Your task to perform on an android device: turn off javascript in the chrome app Image 0: 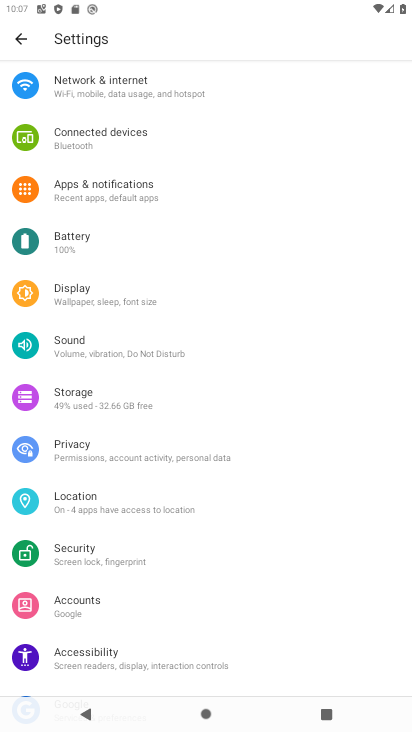
Step 0: press home button
Your task to perform on an android device: turn off javascript in the chrome app Image 1: 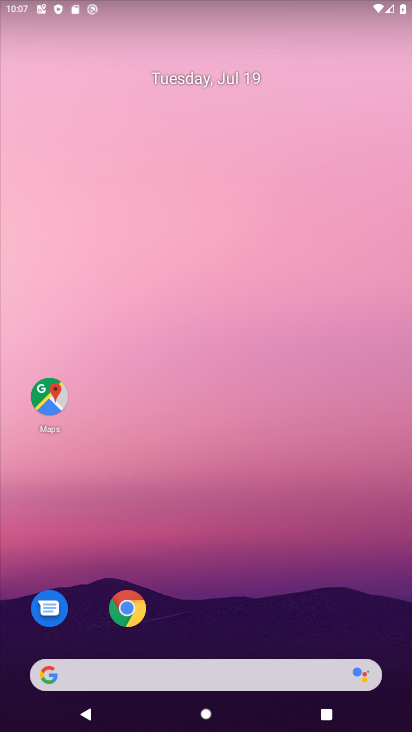
Step 1: click (140, 610)
Your task to perform on an android device: turn off javascript in the chrome app Image 2: 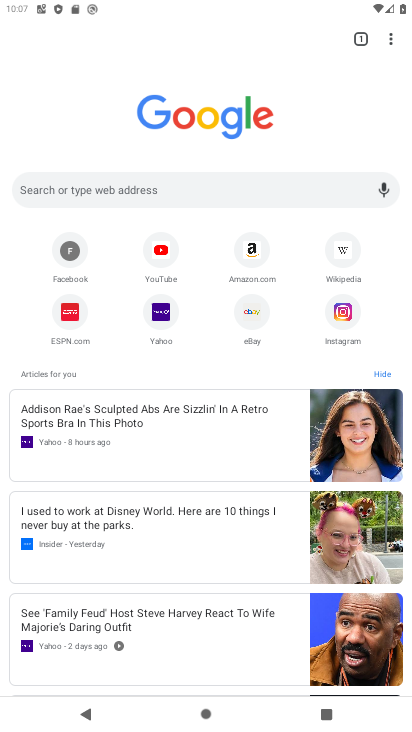
Step 2: click (390, 39)
Your task to perform on an android device: turn off javascript in the chrome app Image 3: 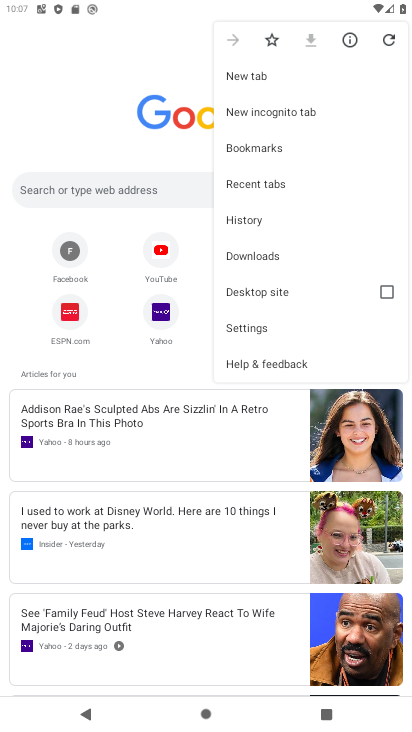
Step 3: click (261, 324)
Your task to perform on an android device: turn off javascript in the chrome app Image 4: 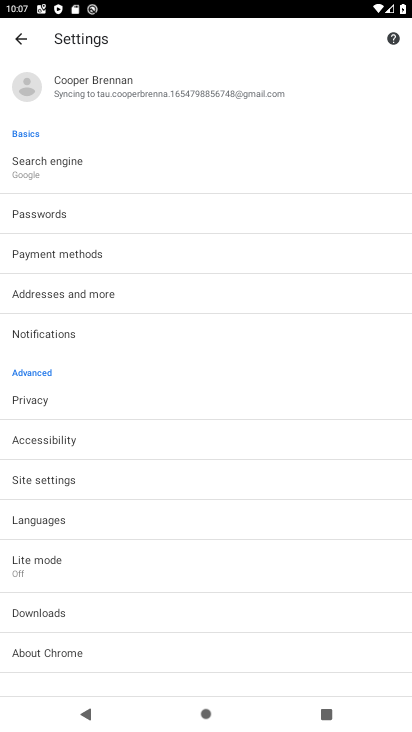
Step 4: click (52, 480)
Your task to perform on an android device: turn off javascript in the chrome app Image 5: 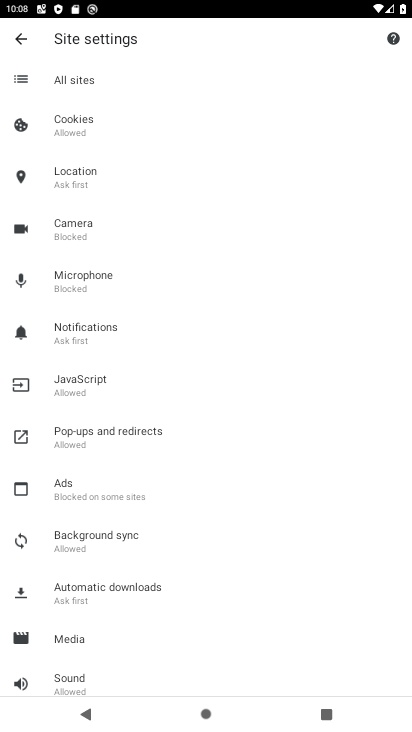
Step 5: click (69, 390)
Your task to perform on an android device: turn off javascript in the chrome app Image 6: 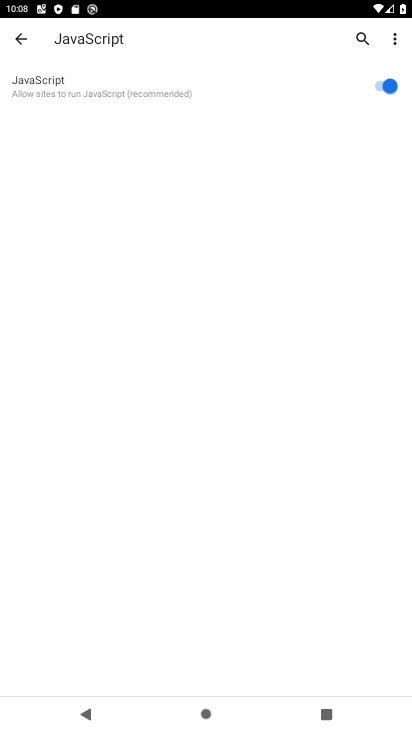
Step 6: click (376, 87)
Your task to perform on an android device: turn off javascript in the chrome app Image 7: 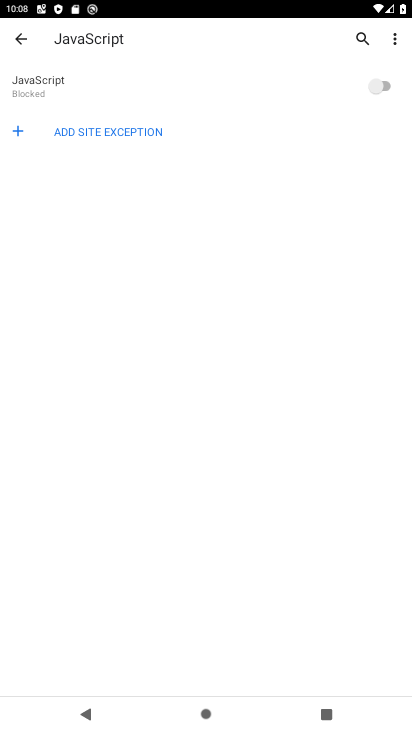
Step 7: task complete